Your task to perform on an android device: change keyboard looks Image 0: 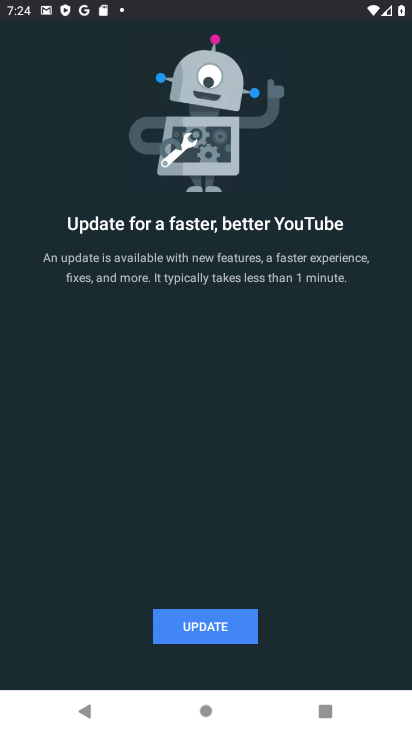
Step 0: press home button
Your task to perform on an android device: change keyboard looks Image 1: 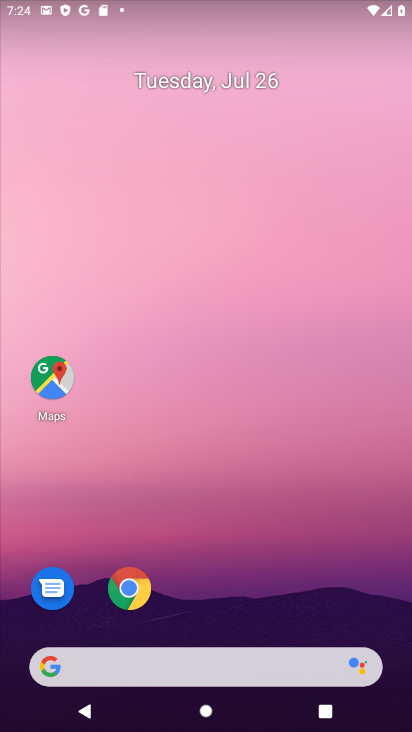
Step 1: drag from (165, 639) to (162, 45)
Your task to perform on an android device: change keyboard looks Image 2: 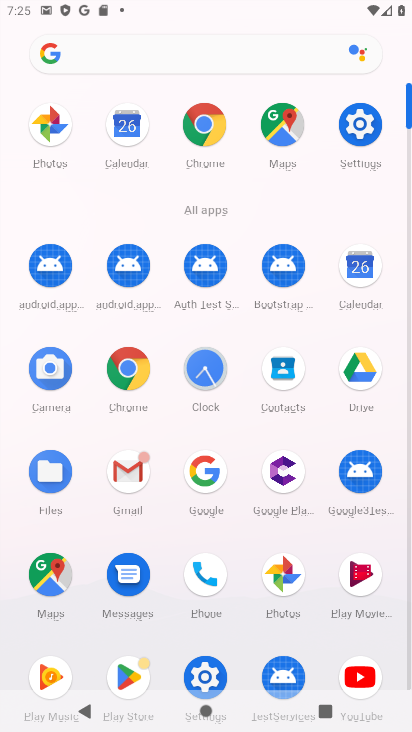
Step 2: click (364, 148)
Your task to perform on an android device: change keyboard looks Image 3: 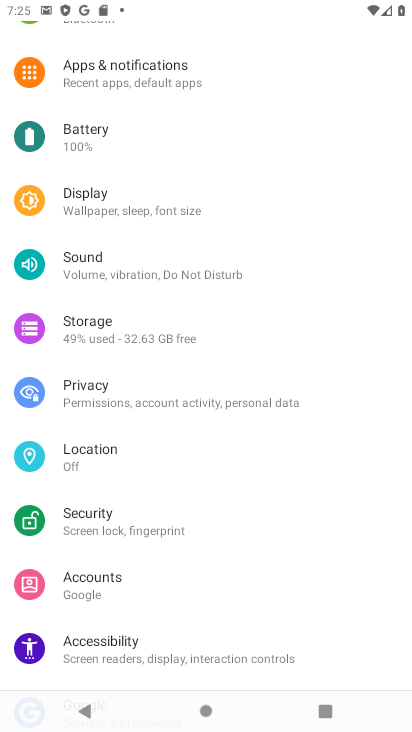
Step 3: drag from (168, 543) to (185, 383)
Your task to perform on an android device: change keyboard looks Image 4: 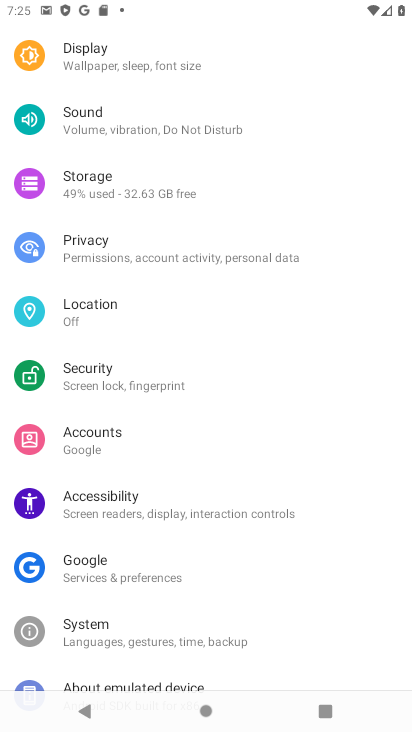
Step 4: drag from (125, 615) to (116, 491)
Your task to perform on an android device: change keyboard looks Image 5: 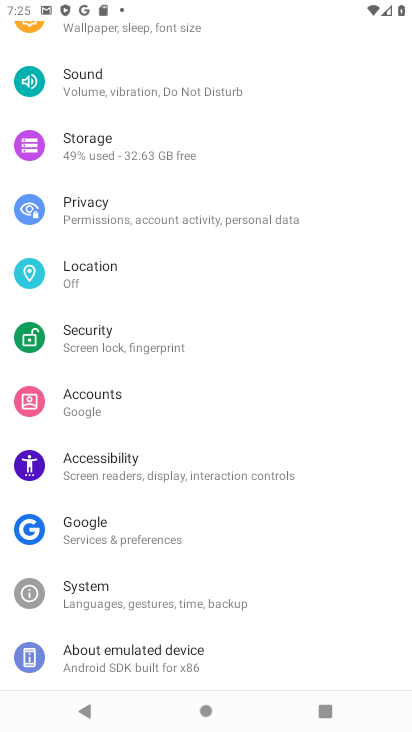
Step 5: click (129, 606)
Your task to perform on an android device: change keyboard looks Image 6: 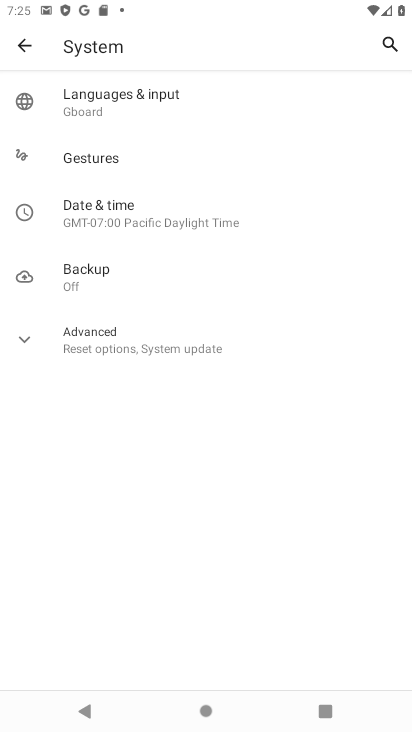
Step 6: click (134, 94)
Your task to perform on an android device: change keyboard looks Image 7: 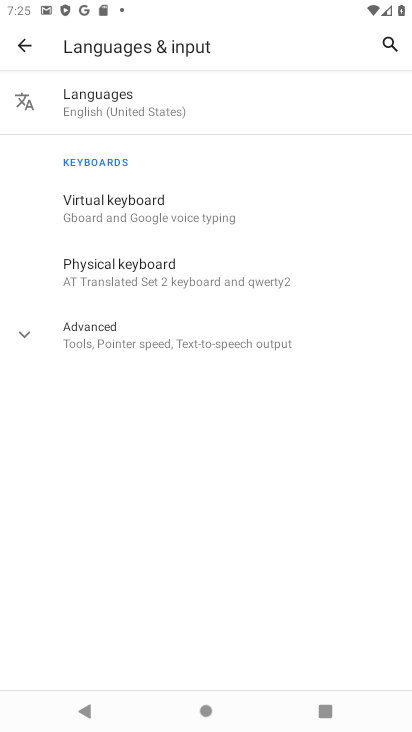
Step 7: click (142, 209)
Your task to perform on an android device: change keyboard looks Image 8: 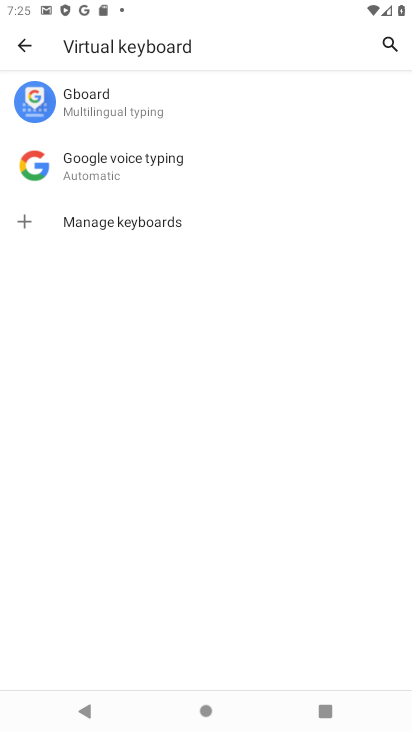
Step 8: click (152, 107)
Your task to perform on an android device: change keyboard looks Image 9: 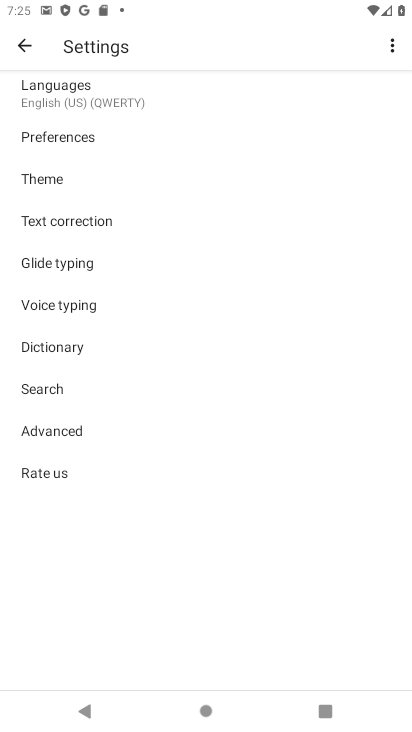
Step 9: click (70, 187)
Your task to perform on an android device: change keyboard looks Image 10: 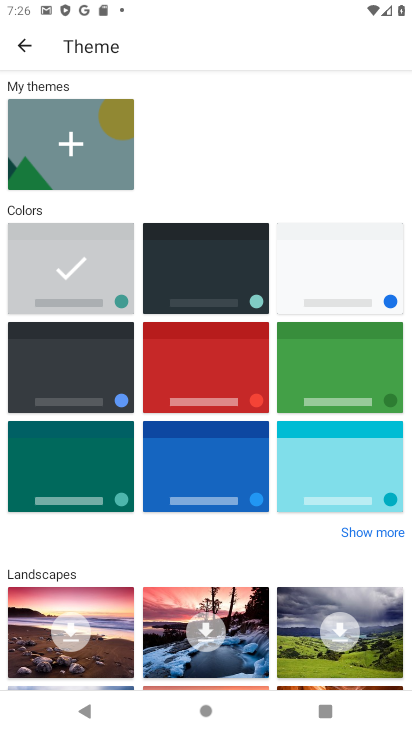
Step 10: click (346, 277)
Your task to perform on an android device: change keyboard looks Image 11: 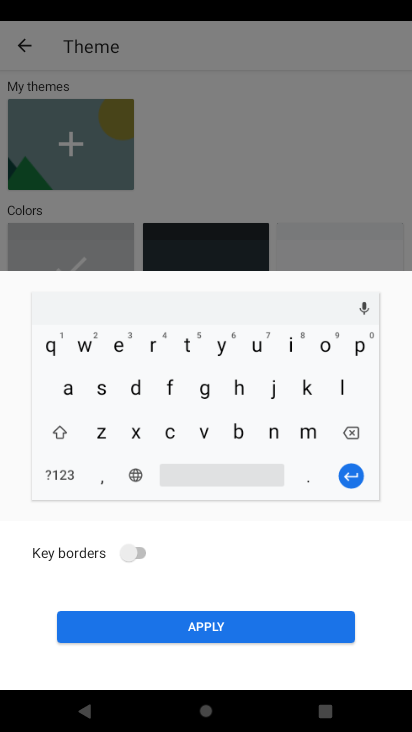
Step 11: click (219, 634)
Your task to perform on an android device: change keyboard looks Image 12: 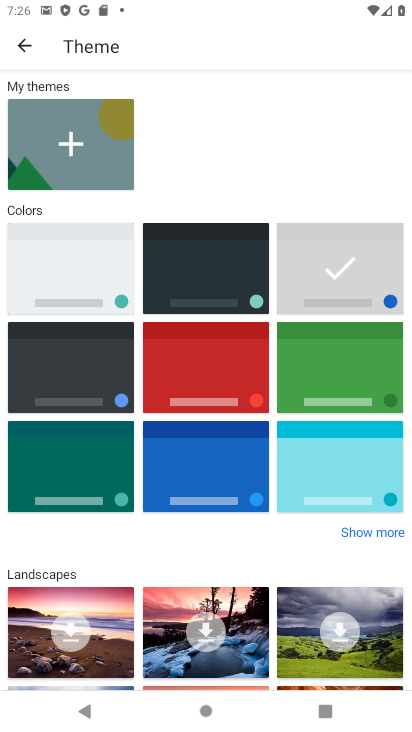
Step 12: task complete